Your task to perform on an android device: turn on location history Image 0: 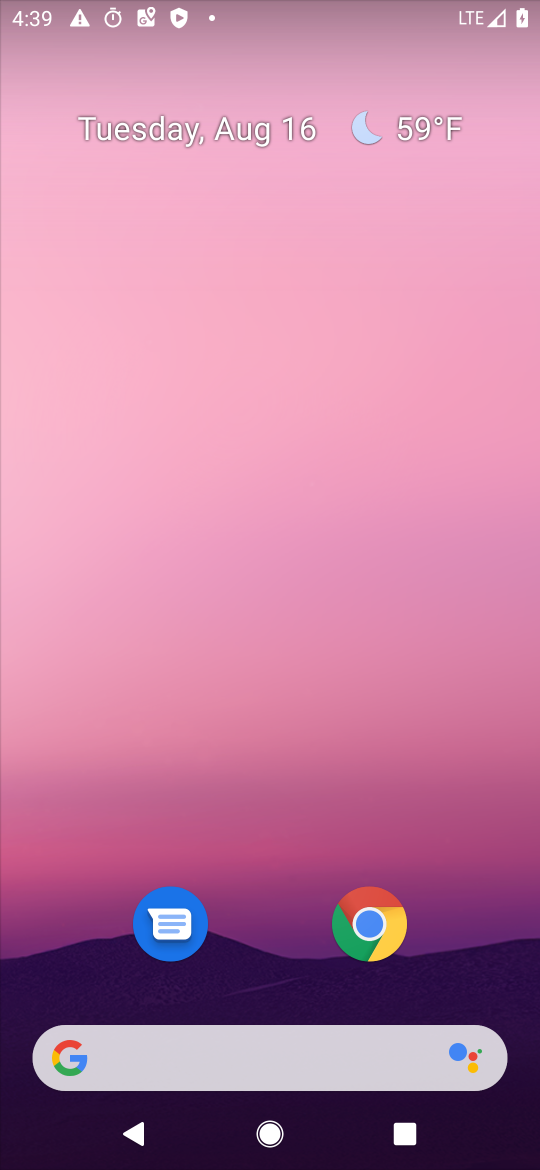
Step 0: drag from (226, 1000) to (423, 263)
Your task to perform on an android device: turn on location history Image 1: 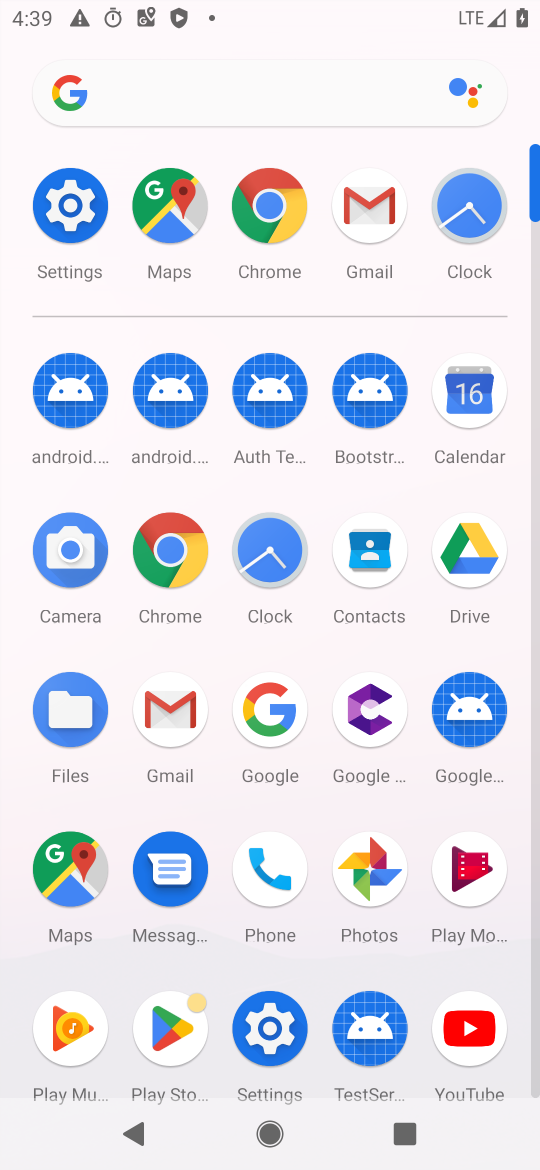
Step 1: click (83, 196)
Your task to perform on an android device: turn on location history Image 2: 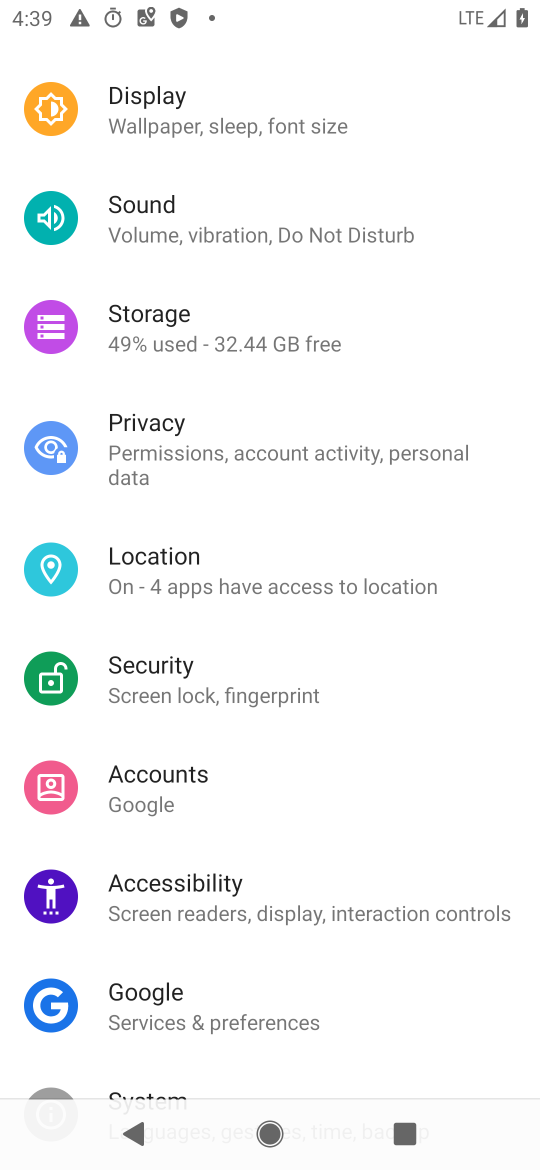
Step 2: click (195, 550)
Your task to perform on an android device: turn on location history Image 3: 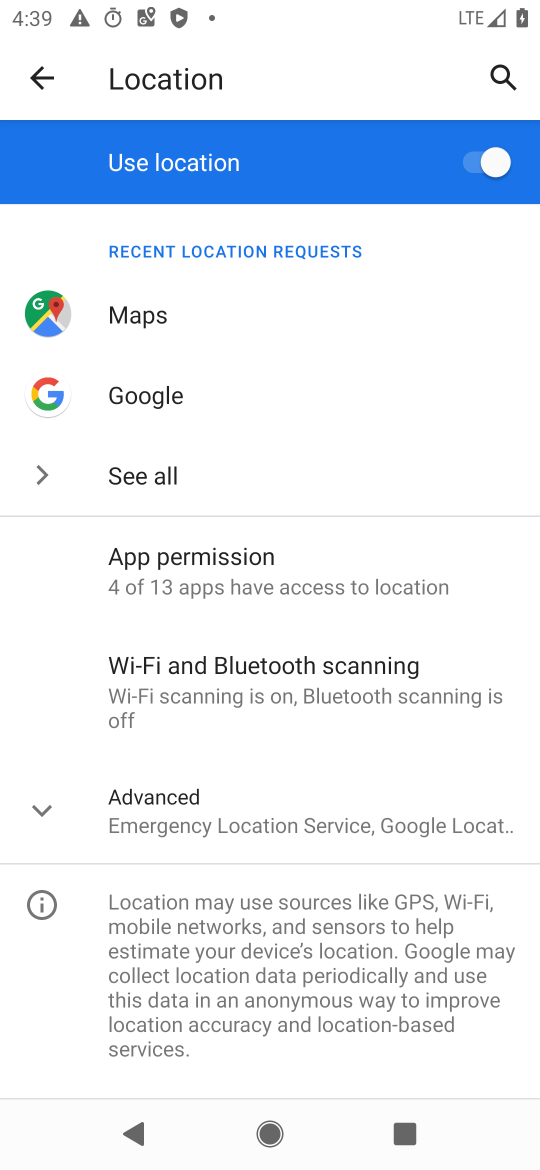
Step 3: click (288, 825)
Your task to perform on an android device: turn on location history Image 4: 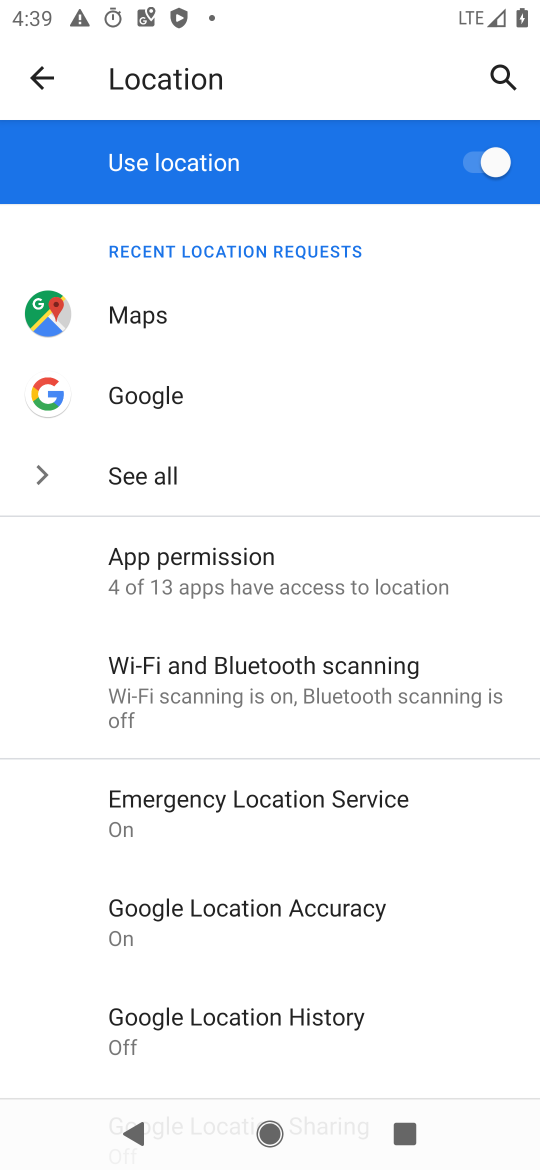
Step 4: click (312, 1025)
Your task to perform on an android device: turn on location history Image 5: 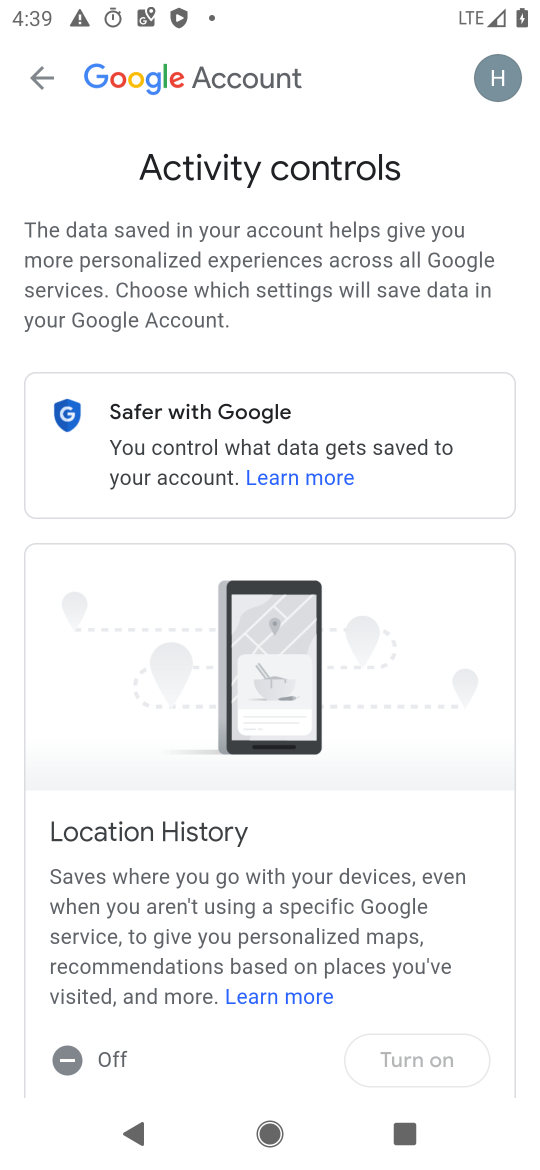
Step 5: drag from (346, 994) to (409, 506)
Your task to perform on an android device: turn on location history Image 6: 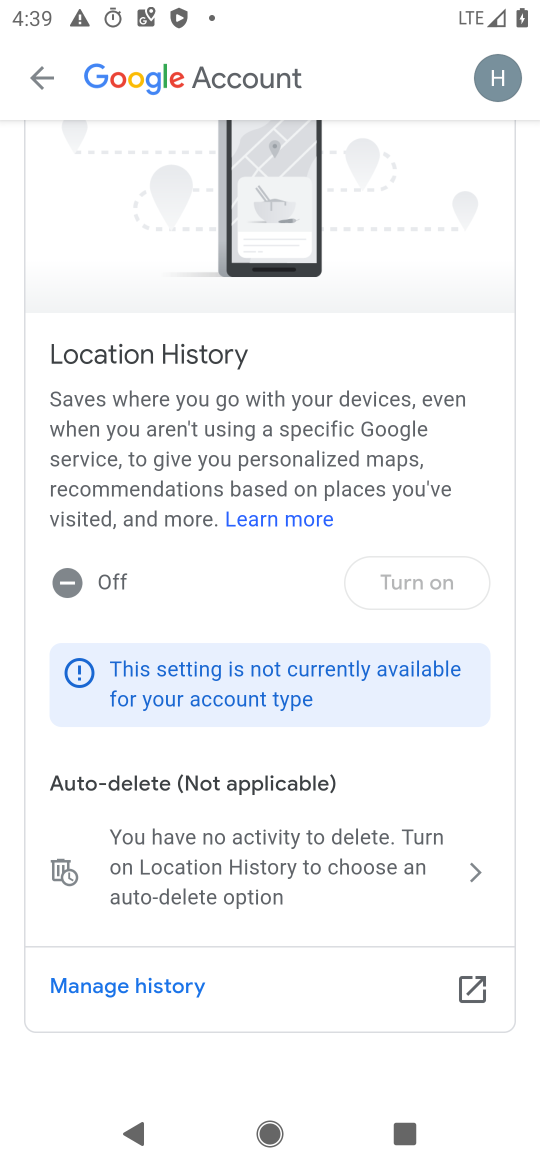
Step 6: click (429, 596)
Your task to perform on an android device: turn on location history Image 7: 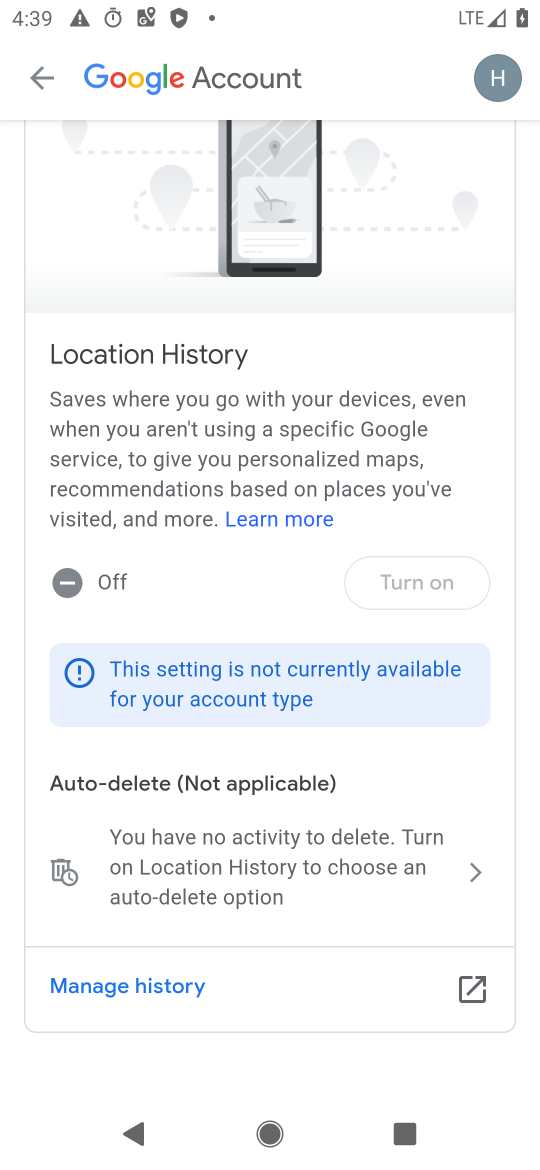
Step 7: task complete